Your task to perform on an android device: make emails show in primary in the gmail app Image 0: 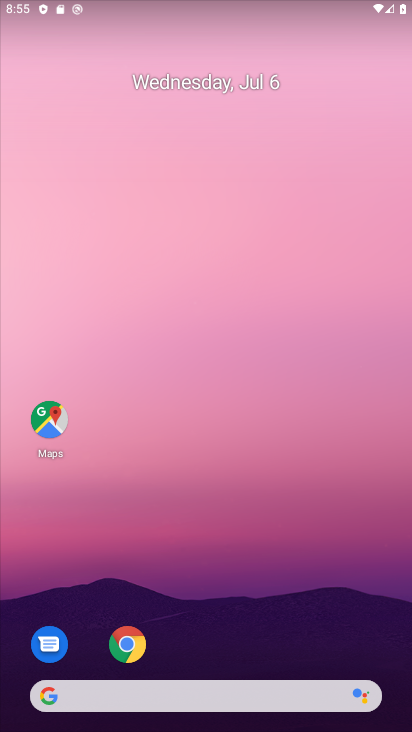
Step 0: drag from (263, 620) to (216, 4)
Your task to perform on an android device: make emails show in primary in the gmail app Image 1: 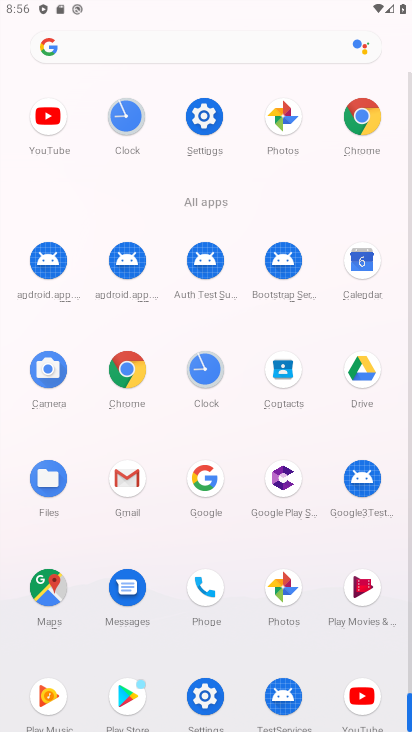
Step 1: click (119, 492)
Your task to perform on an android device: make emails show in primary in the gmail app Image 2: 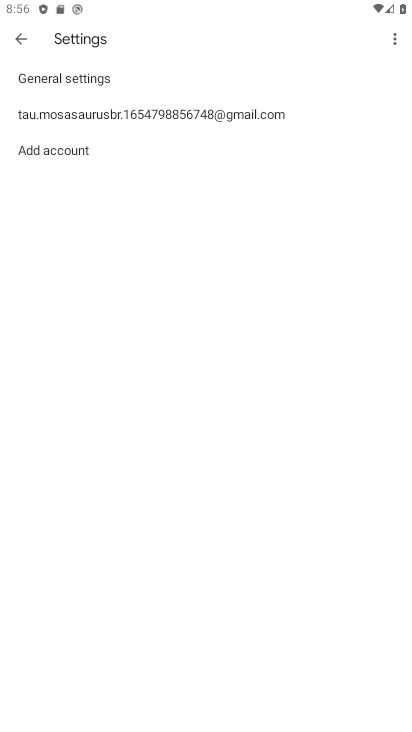
Step 2: drag from (181, 586) to (223, 335)
Your task to perform on an android device: make emails show in primary in the gmail app Image 3: 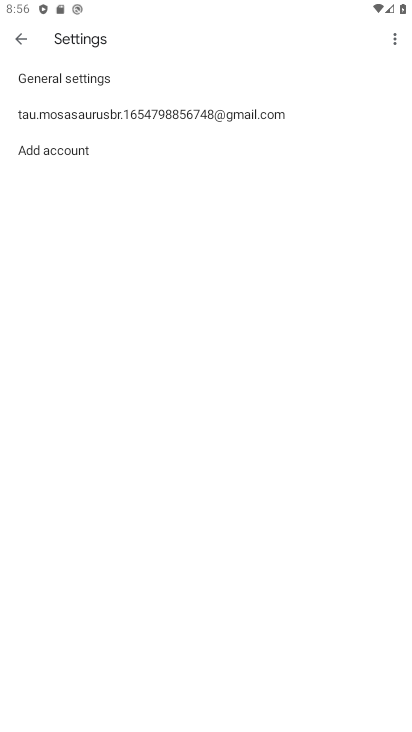
Step 3: click (77, 82)
Your task to perform on an android device: make emails show in primary in the gmail app Image 4: 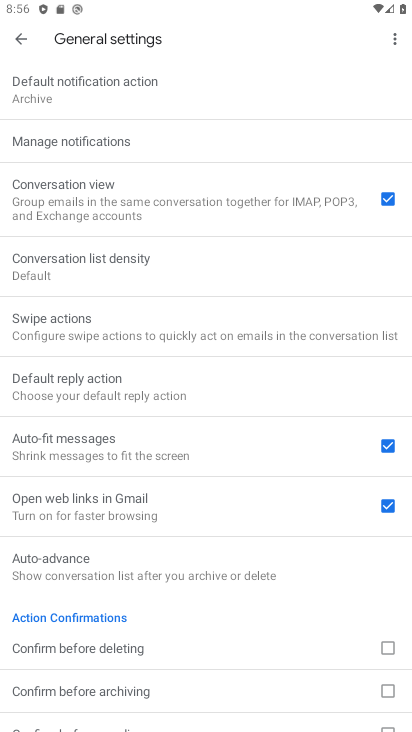
Step 4: click (24, 30)
Your task to perform on an android device: make emails show in primary in the gmail app Image 5: 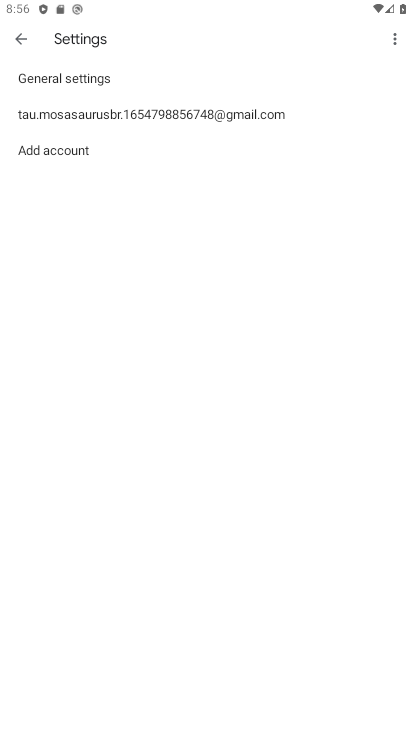
Step 5: click (84, 124)
Your task to perform on an android device: make emails show in primary in the gmail app Image 6: 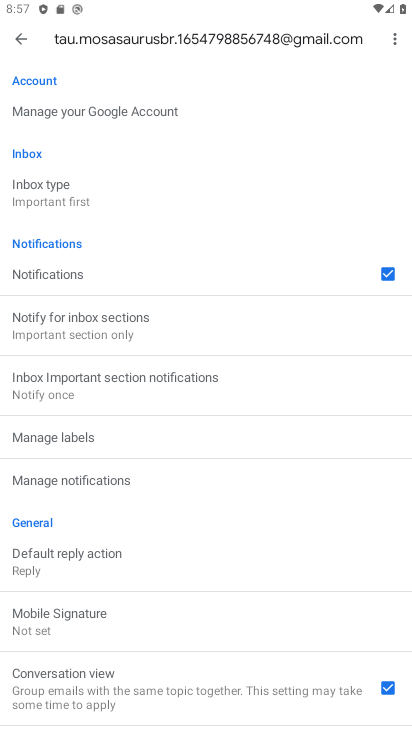
Step 6: task complete